Your task to perform on an android device: Go to Maps Image 0: 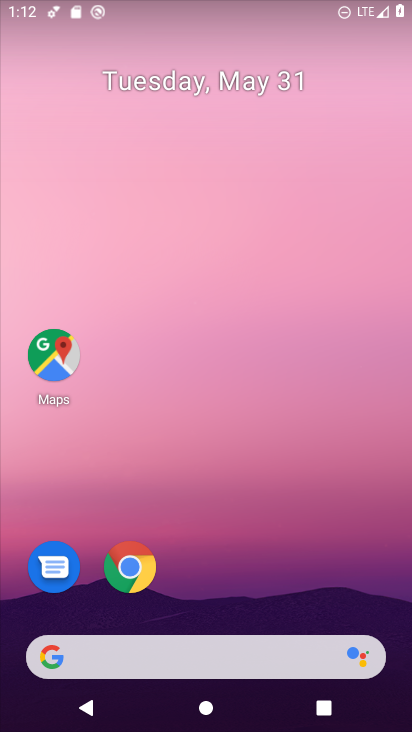
Step 0: click (44, 380)
Your task to perform on an android device: Go to Maps Image 1: 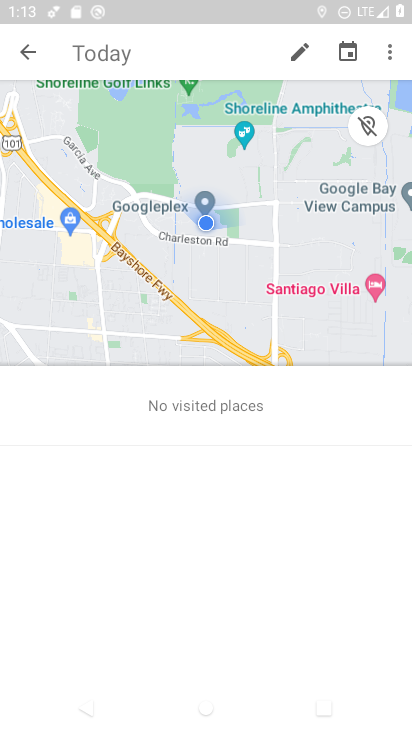
Step 1: task complete